Your task to perform on an android device: Go to calendar. Show me events next week Image 0: 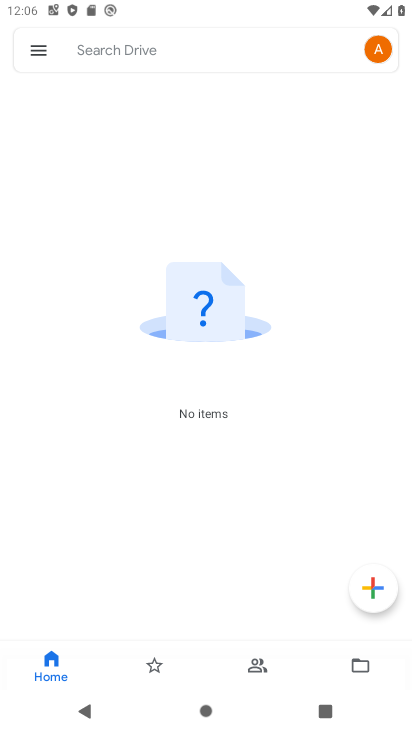
Step 0: press home button
Your task to perform on an android device: Go to calendar. Show me events next week Image 1: 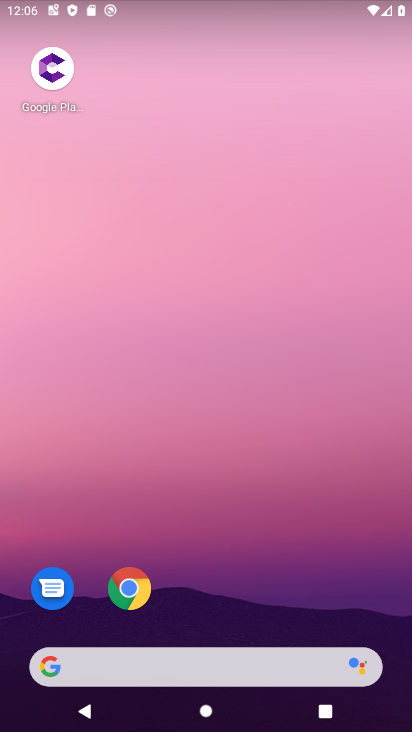
Step 1: drag from (249, 611) to (223, 97)
Your task to perform on an android device: Go to calendar. Show me events next week Image 2: 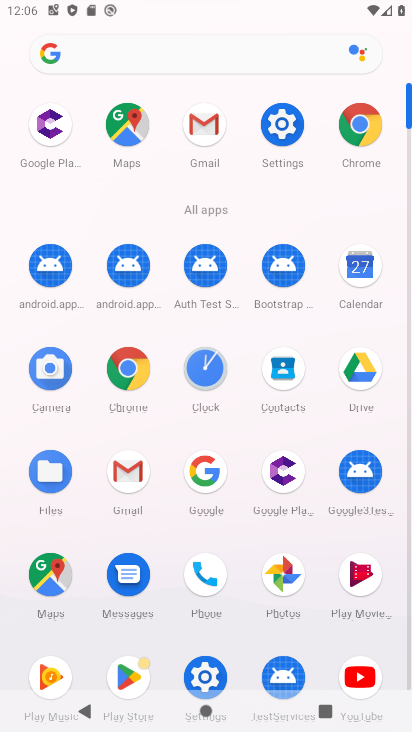
Step 2: click (368, 274)
Your task to perform on an android device: Go to calendar. Show me events next week Image 3: 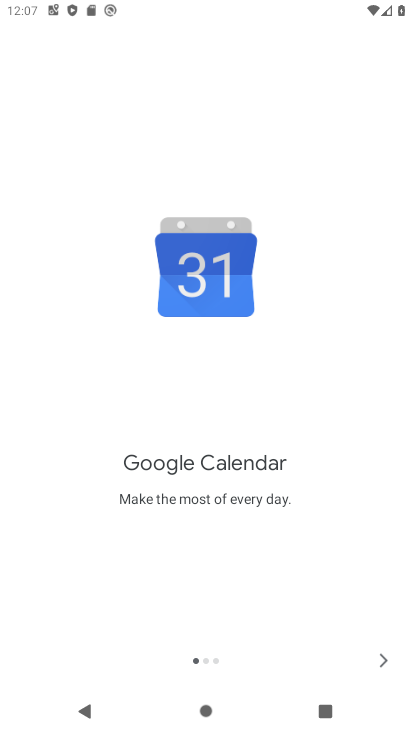
Step 3: click (383, 657)
Your task to perform on an android device: Go to calendar. Show me events next week Image 4: 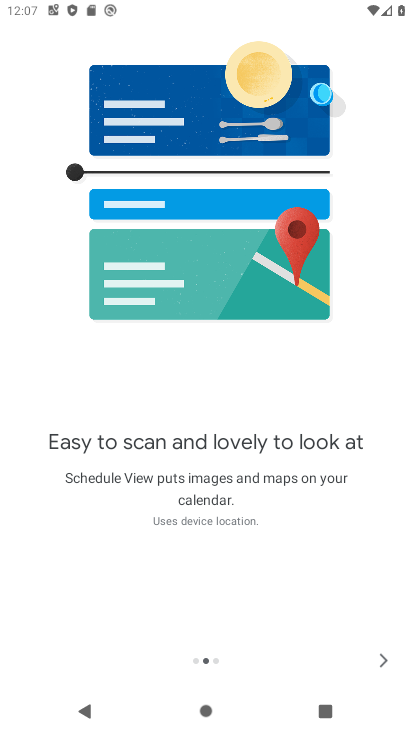
Step 4: click (383, 667)
Your task to perform on an android device: Go to calendar. Show me events next week Image 5: 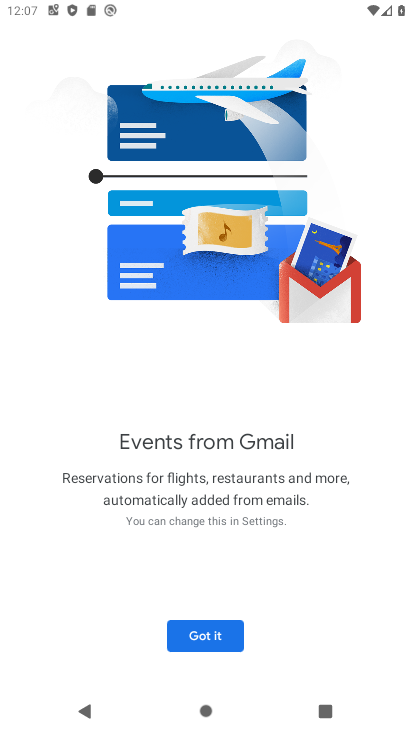
Step 5: click (223, 627)
Your task to perform on an android device: Go to calendar. Show me events next week Image 6: 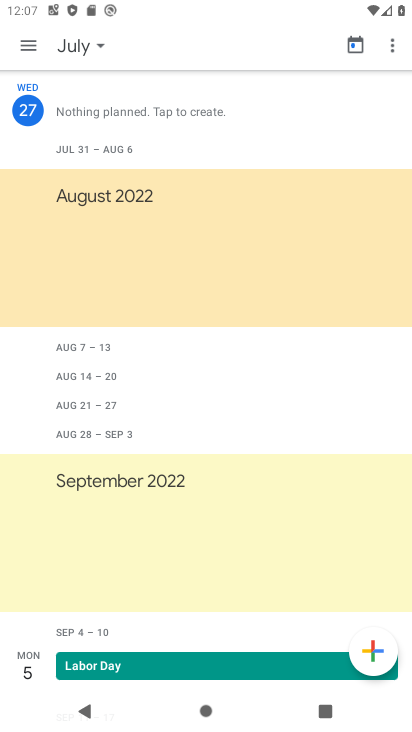
Step 6: click (19, 45)
Your task to perform on an android device: Go to calendar. Show me events next week Image 7: 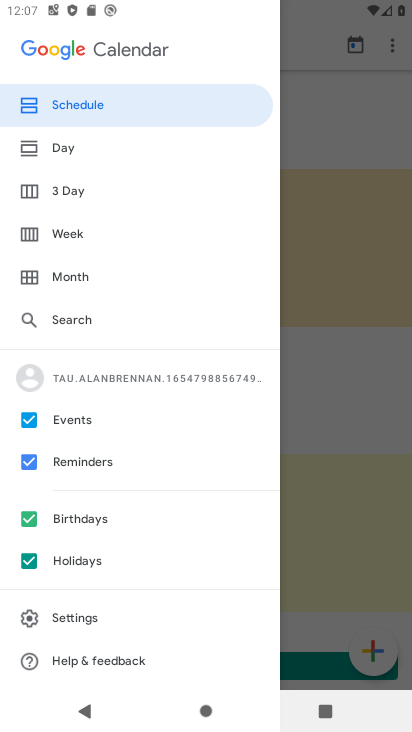
Step 7: click (28, 564)
Your task to perform on an android device: Go to calendar. Show me events next week Image 8: 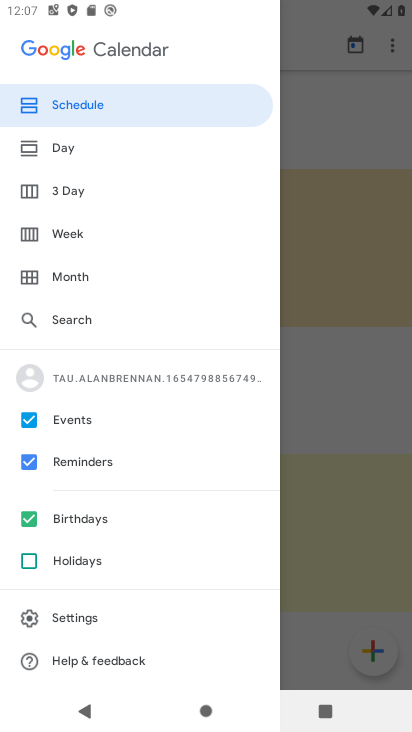
Step 8: click (27, 509)
Your task to perform on an android device: Go to calendar. Show me events next week Image 9: 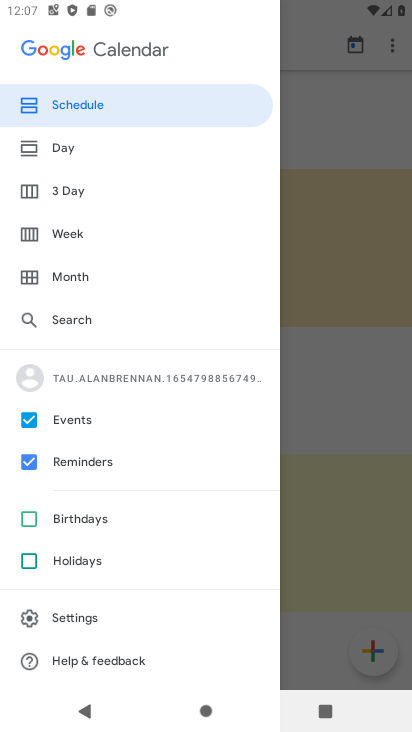
Step 9: click (25, 468)
Your task to perform on an android device: Go to calendar. Show me events next week Image 10: 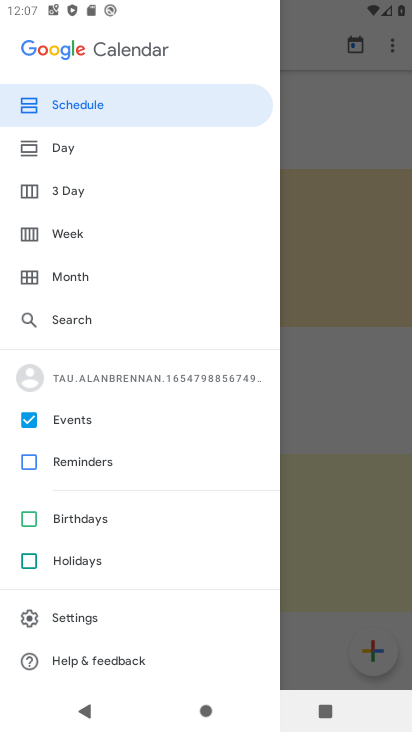
Step 10: click (92, 240)
Your task to perform on an android device: Go to calendar. Show me events next week Image 11: 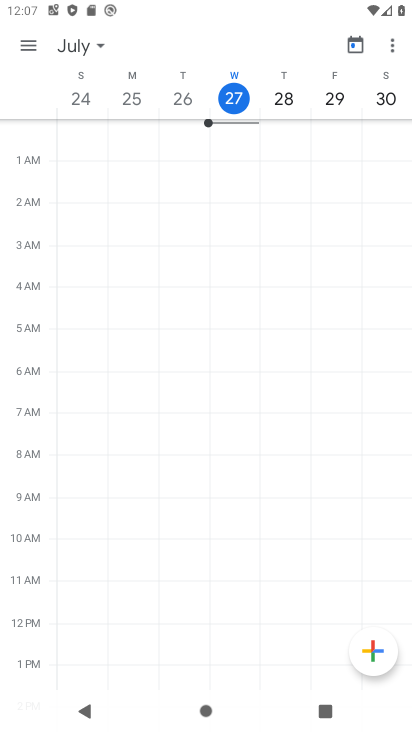
Step 11: task complete